Your task to perform on an android device: set an alarm Image 0: 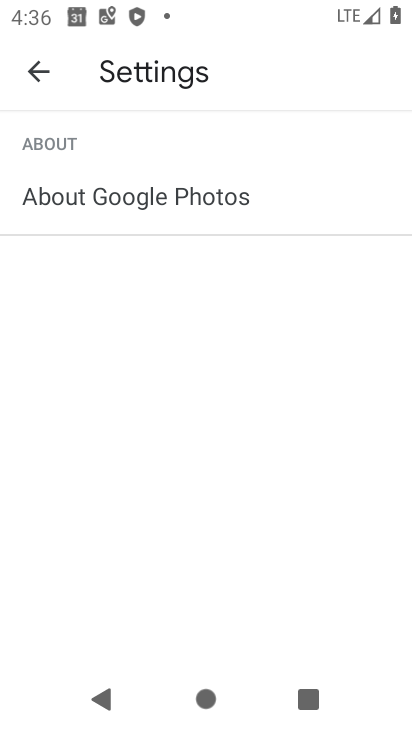
Step 0: press back button
Your task to perform on an android device: set an alarm Image 1: 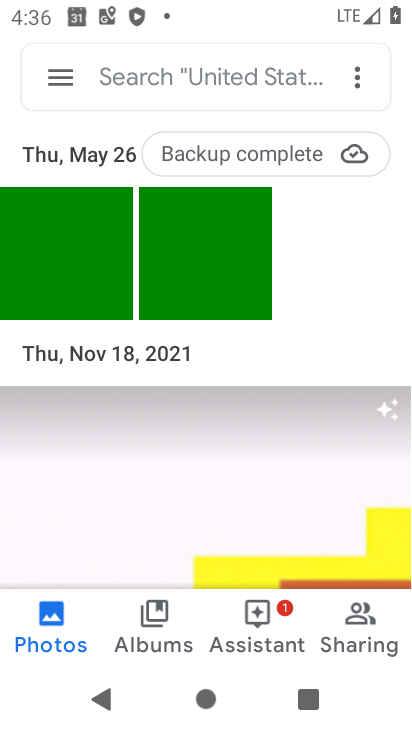
Step 1: press home button
Your task to perform on an android device: set an alarm Image 2: 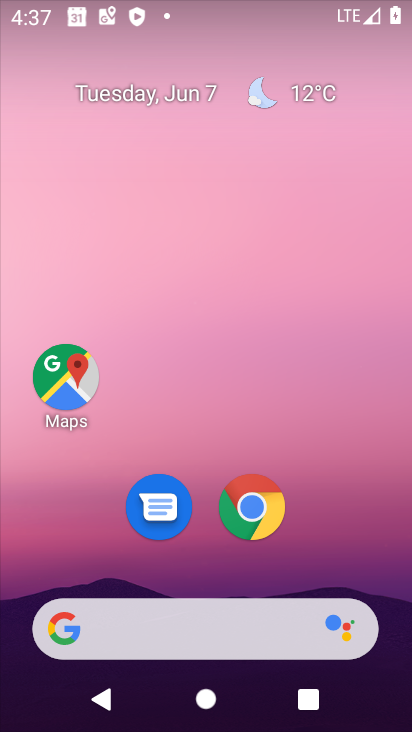
Step 2: drag from (369, 520) to (235, 24)
Your task to perform on an android device: set an alarm Image 3: 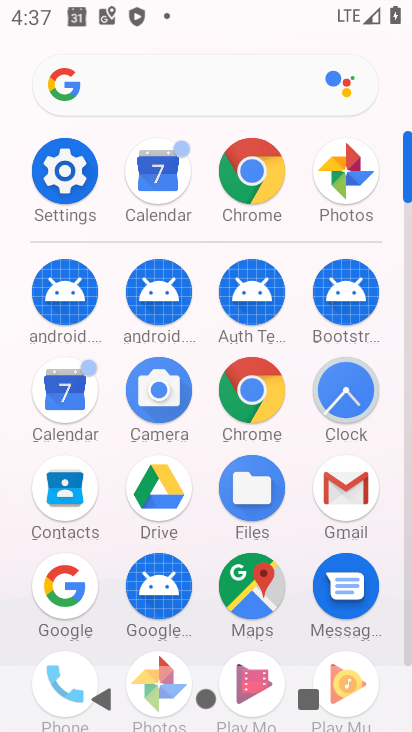
Step 3: click (345, 388)
Your task to perform on an android device: set an alarm Image 4: 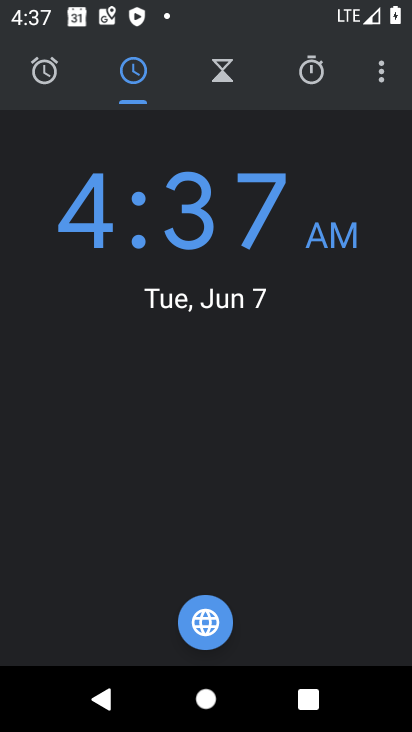
Step 4: click (60, 66)
Your task to perform on an android device: set an alarm Image 5: 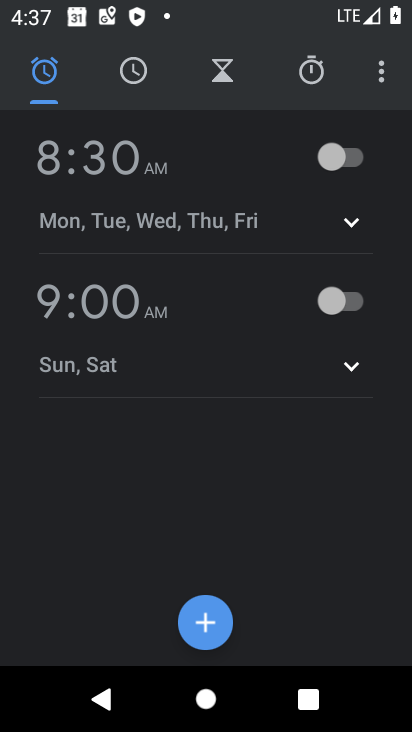
Step 5: click (212, 623)
Your task to perform on an android device: set an alarm Image 6: 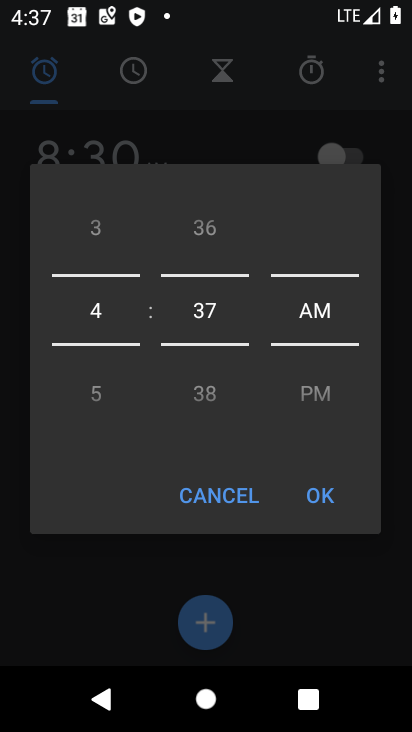
Step 6: drag from (116, 386) to (113, 175)
Your task to perform on an android device: set an alarm Image 7: 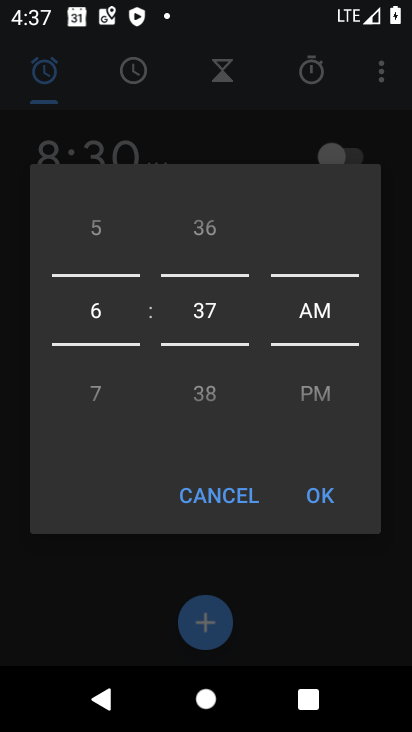
Step 7: click (327, 502)
Your task to perform on an android device: set an alarm Image 8: 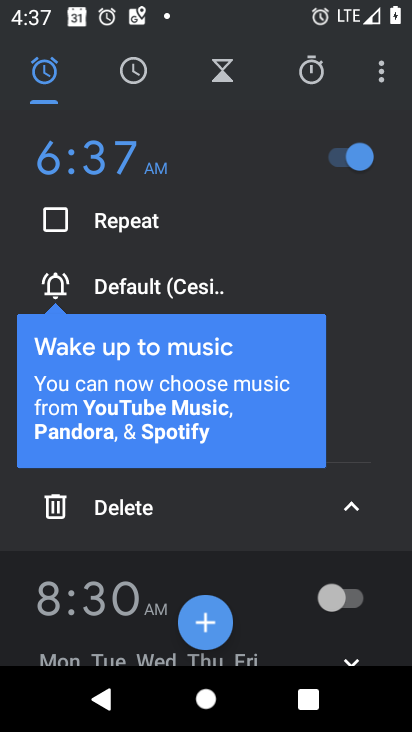
Step 8: task complete